Your task to perform on an android device: stop showing notifications on the lock screen Image 0: 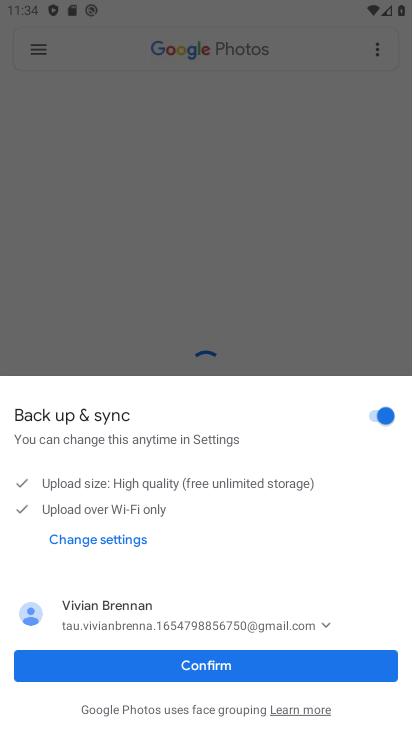
Step 0: press home button
Your task to perform on an android device: stop showing notifications on the lock screen Image 1: 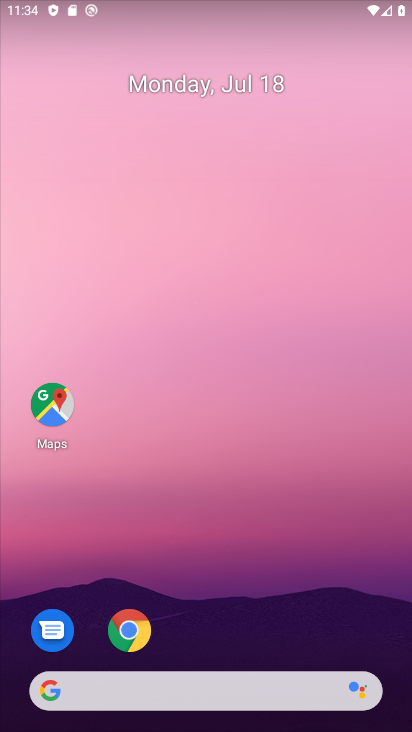
Step 1: drag from (194, 634) to (168, 121)
Your task to perform on an android device: stop showing notifications on the lock screen Image 2: 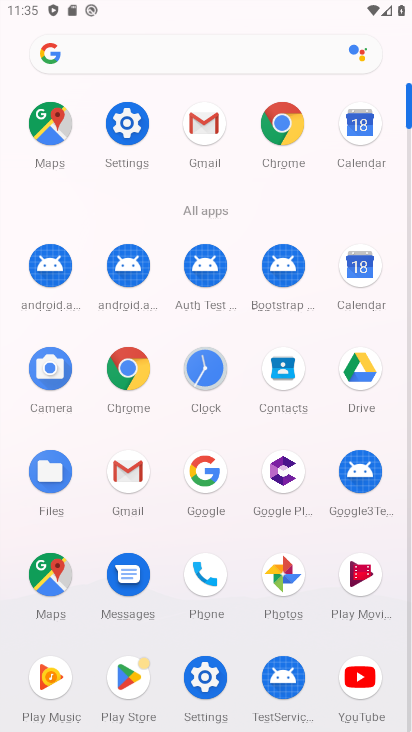
Step 2: click (132, 142)
Your task to perform on an android device: stop showing notifications on the lock screen Image 3: 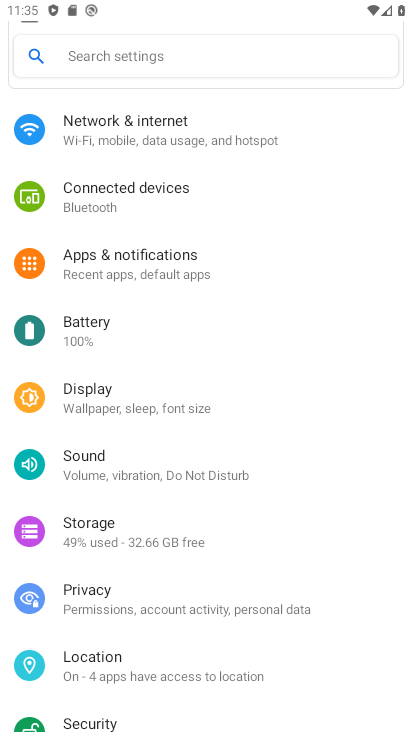
Step 3: click (162, 274)
Your task to perform on an android device: stop showing notifications on the lock screen Image 4: 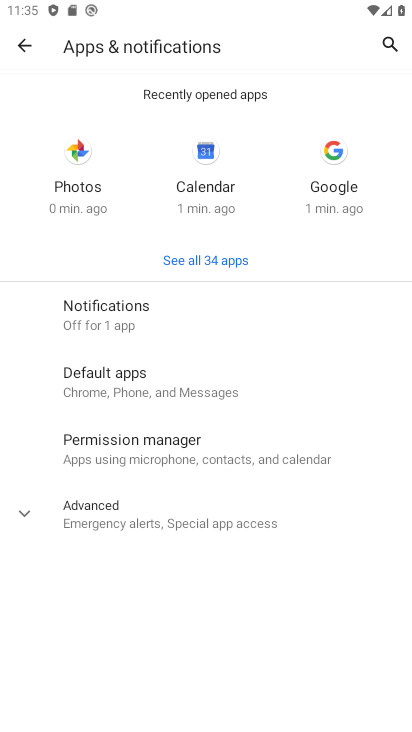
Step 4: click (119, 297)
Your task to perform on an android device: stop showing notifications on the lock screen Image 5: 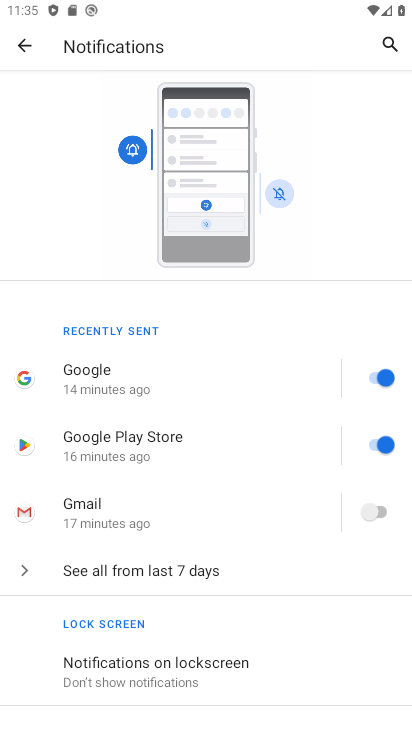
Step 5: click (178, 687)
Your task to perform on an android device: stop showing notifications on the lock screen Image 6: 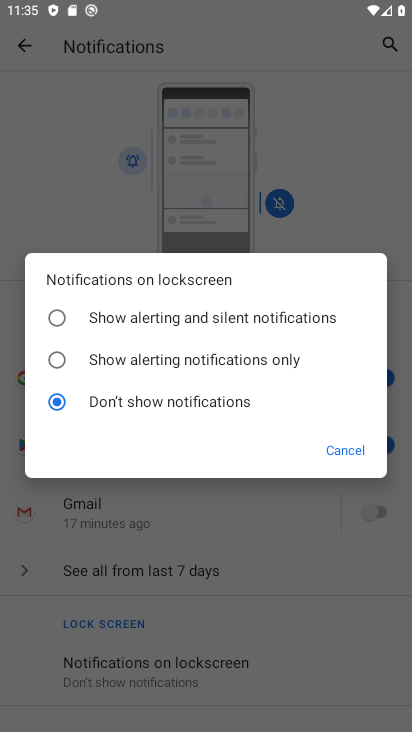
Step 6: task complete